Your task to perform on an android device: Search for seafood restaurants on Google Maps Image 0: 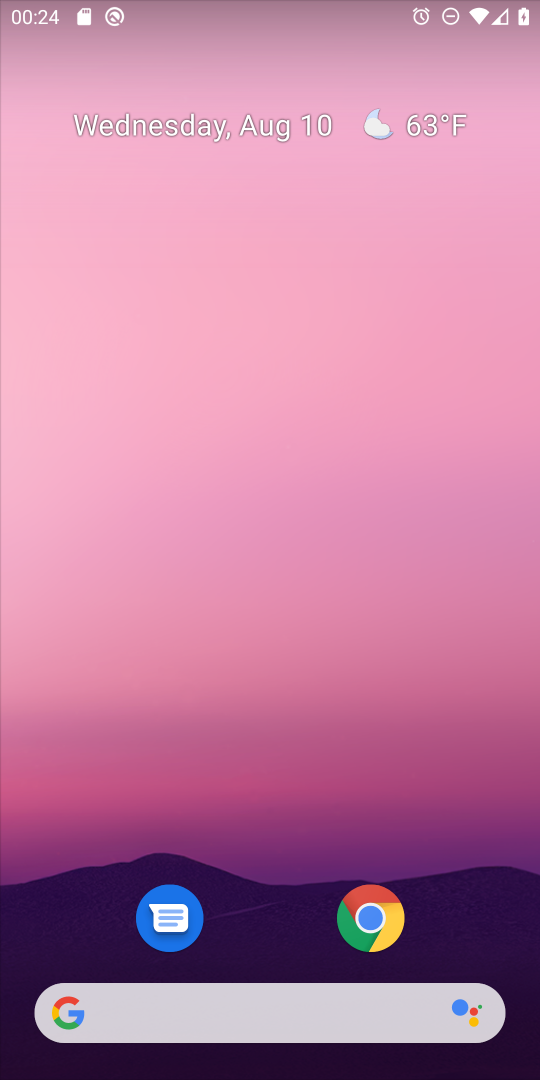
Step 0: drag from (281, 881) to (347, 154)
Your task to perform on an android device: Search for seafood restaurants on Google Maps Image 1: 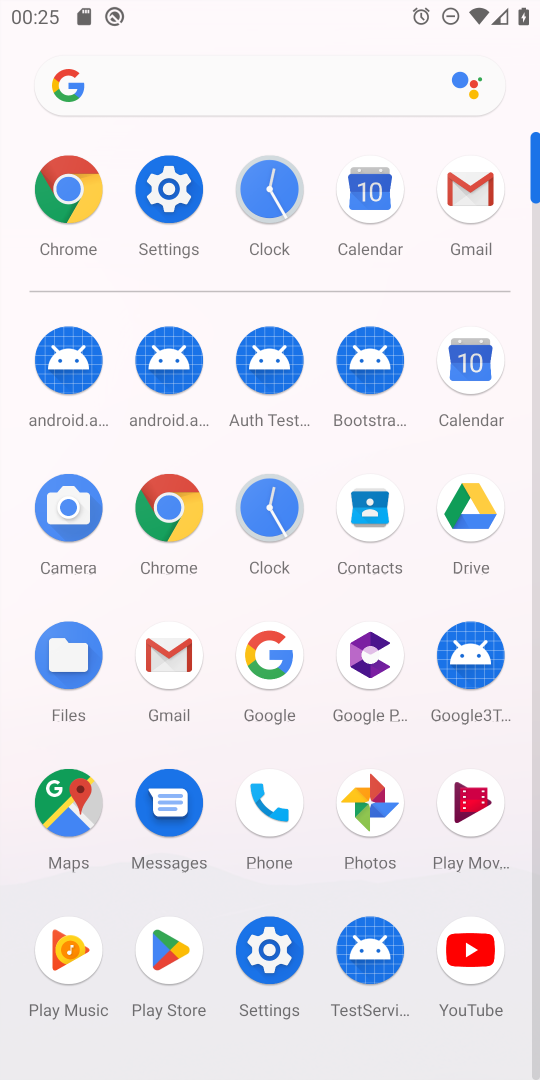
Step 1: click (57, 809)
Your task to perform on an android device: Search for seafood restaurants on Google Maps Image 2: 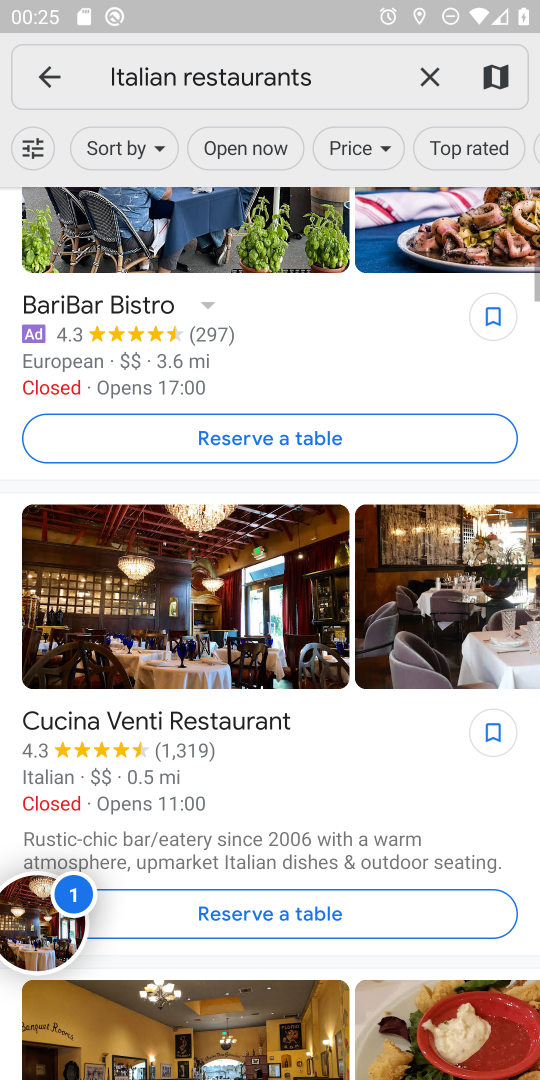
Step 2: click (430, 72)
Your task to perform on an android device: Search for seafood restaurants on Google Maps Image 3: 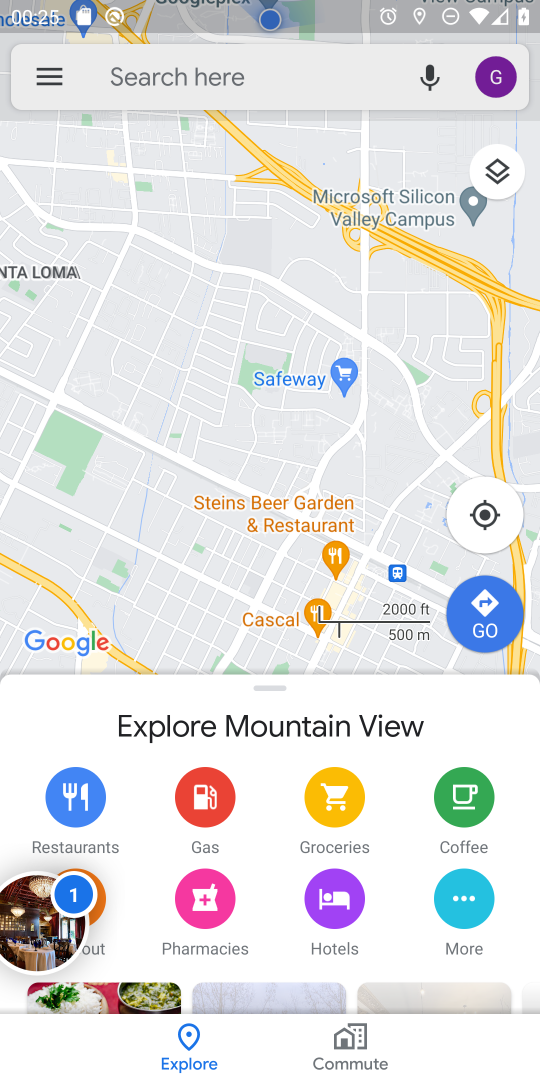
Step 3: click (308, 66)
Your task to perform on an android device: Search for seafood restaurants on Google Maps Image 4: 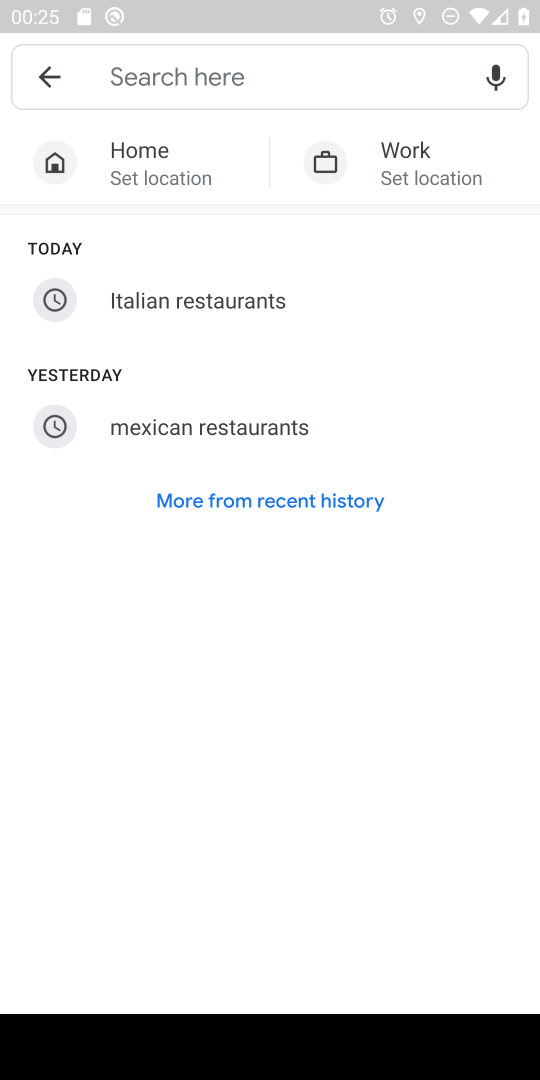
Step 4: type "seafood restaurants"
Your task to perform on an android device: Search for seafood restaurants on Google Maps Image 5: 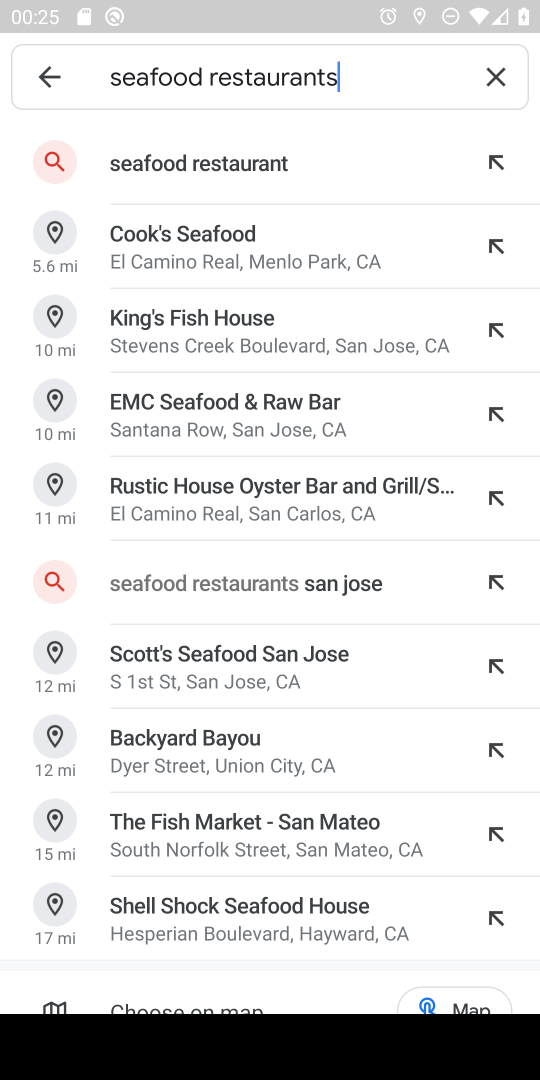
Step 5: press enter
Your task to perform on an android device: Search for seafood restaurants on Google Maps Image 6: 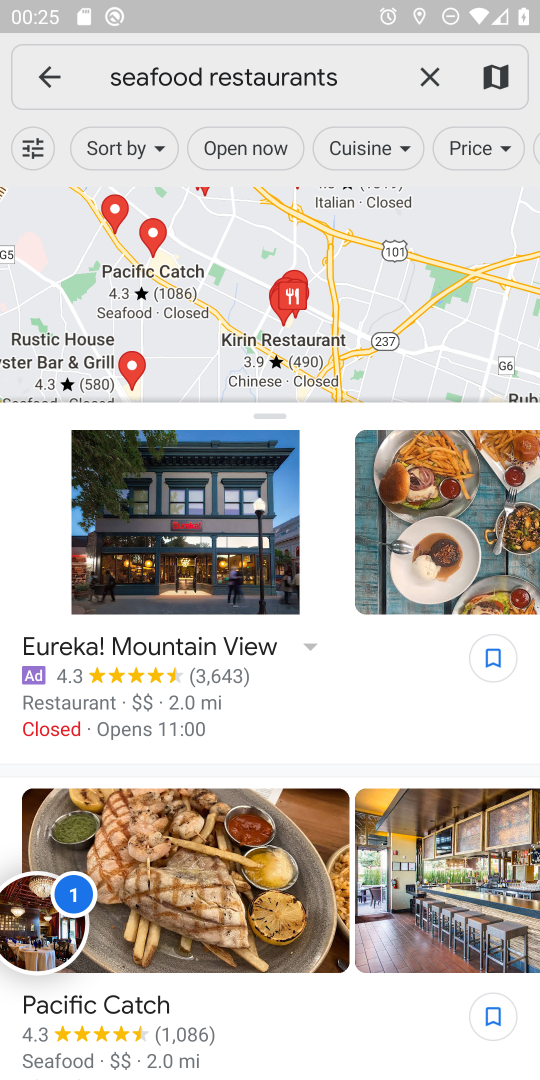
Step 6: task complete